Your task to perform on an android device: delete a single message in the gmail app Image 0: 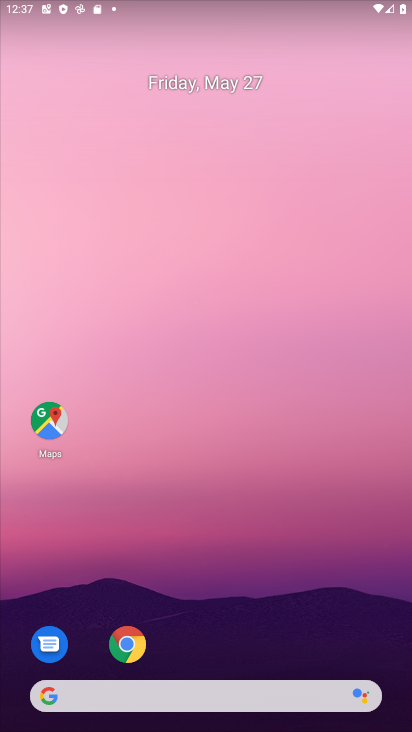
Step 0: drag from (361, 611) to (252, 20)
Your task to perform on an android device: delete a single message in the gmail app Image 1: 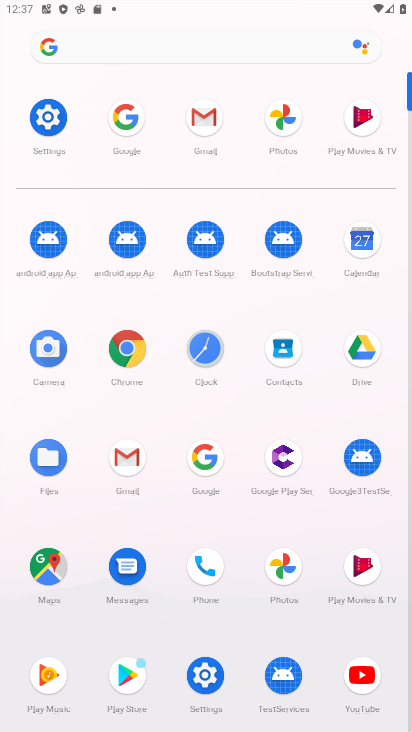
Step 1: click (122, 463)
Your task to perform on an android device: delete a single message in the gmail app Image 2: 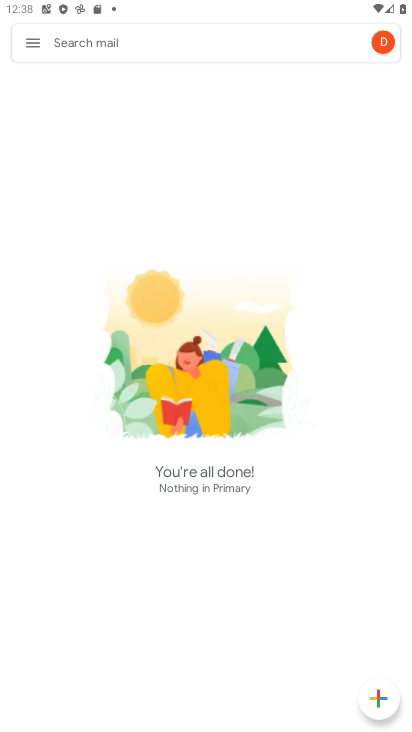
Step 2: task complete